Your task to perform on an android device: turn off sleep mode Image 0: 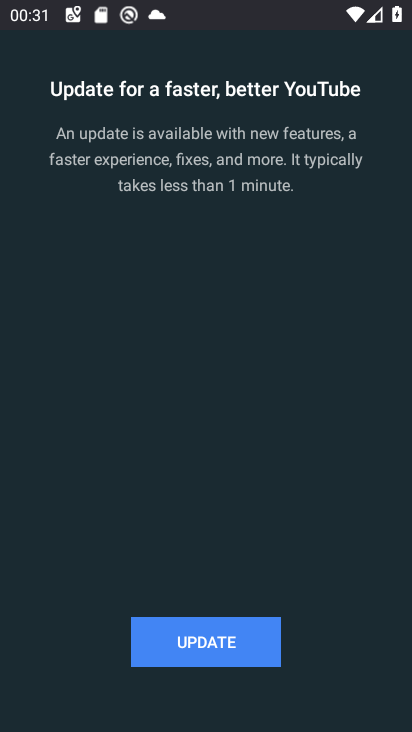
Step 0: press home button
Your task to perform on an android device: turn off sleep mode Image 1: 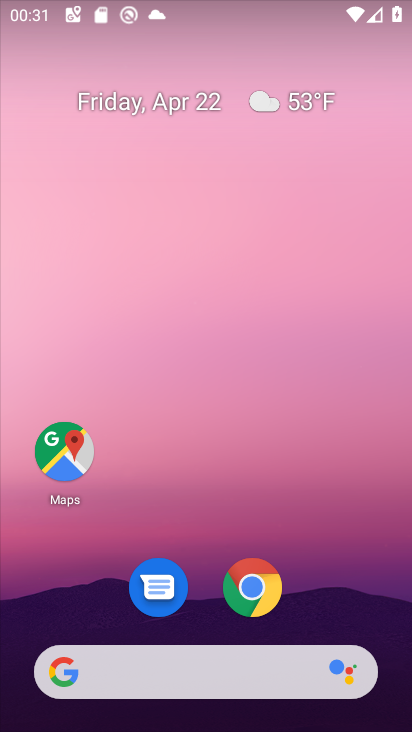
Step 1: drag from (305, 536) to (303, 163)
Your task to perform on an android device: turn off sleep mode Image 2: 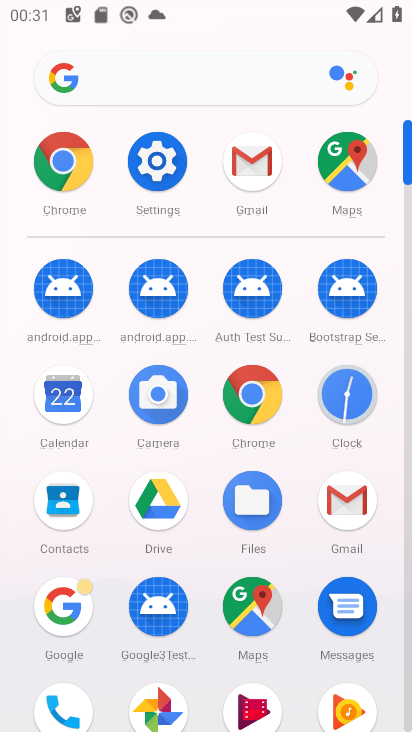
Step 2: drag from (292, 663) to (297, 462)
Your task to perform on an android device: turn off sleep mode Image 3: 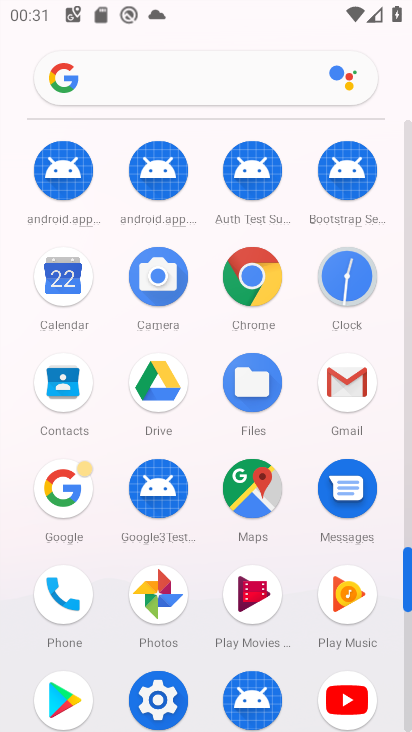
Step 3: click (164, 697)
Your task to perform on an android device: turn off sleep mode Image 4: 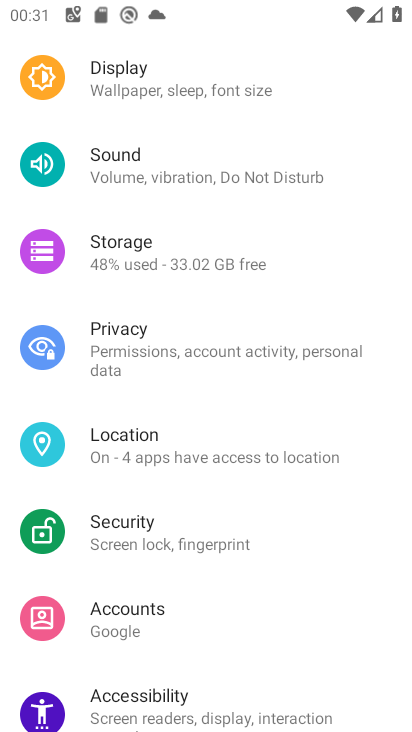
Step 4: click (195, 100)
Your task to perform on an android device: turn off sleep mode Image 5: 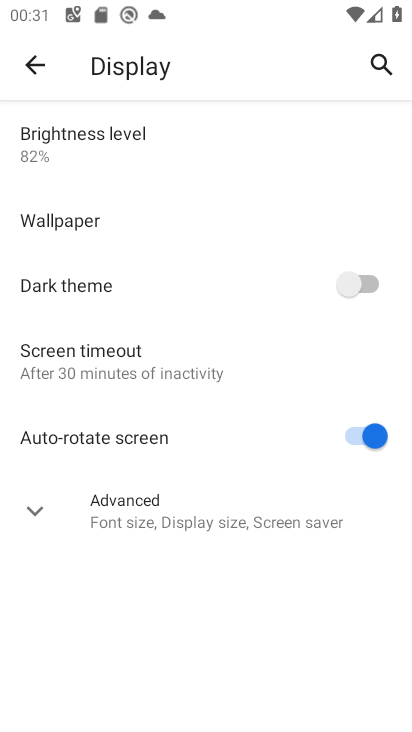
Step 5: click (33, 512)
Your task to perform on an android device: turn off sleep mode Image 6: 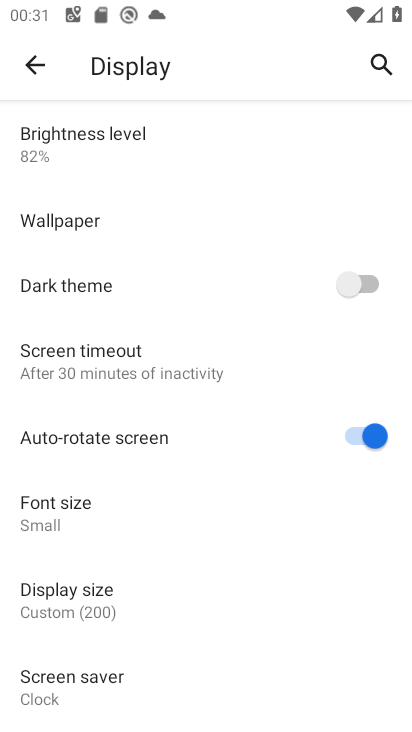
Step 6: task complete